Your task to perform on an android device: open wifi settings Image 0: 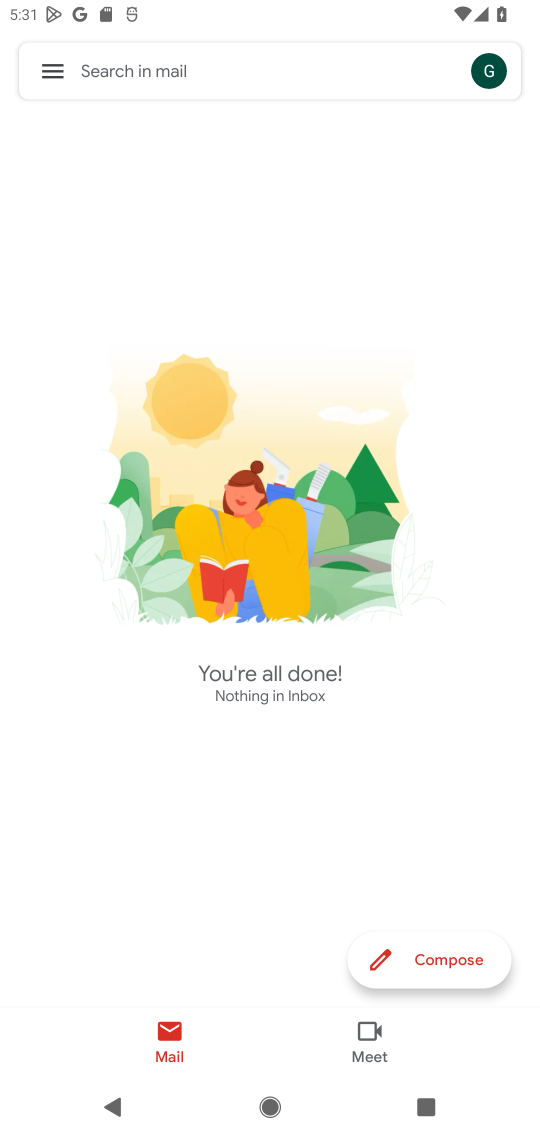
Step 0: drag from (234, 15) to (191, 993)
Your task to perform on an android device: open wifi settings Image 1: 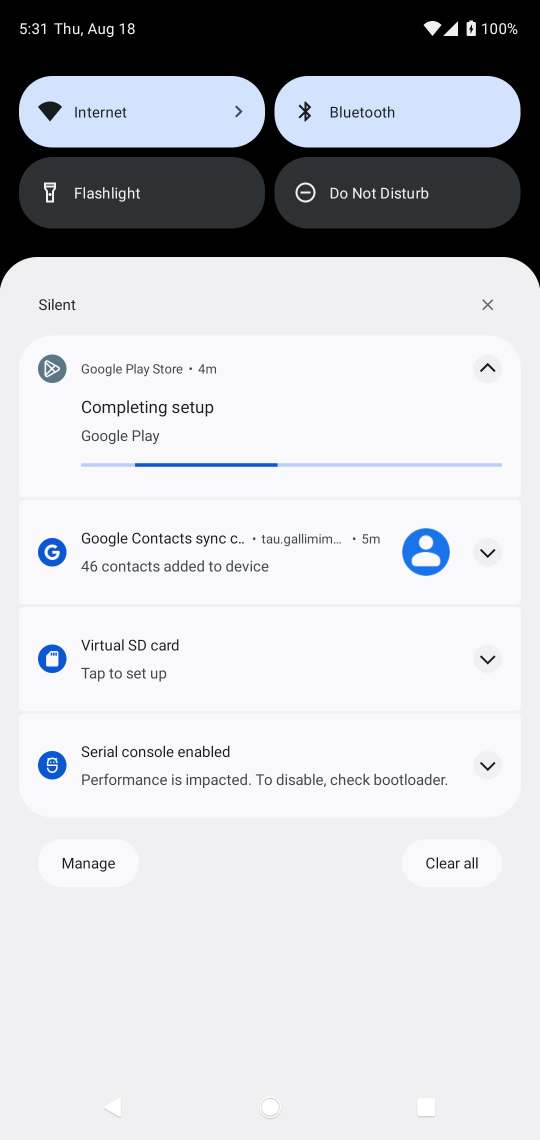
Step 1: click (99, 112)
Your task to perform on an android device: open wifi settings Image 2: 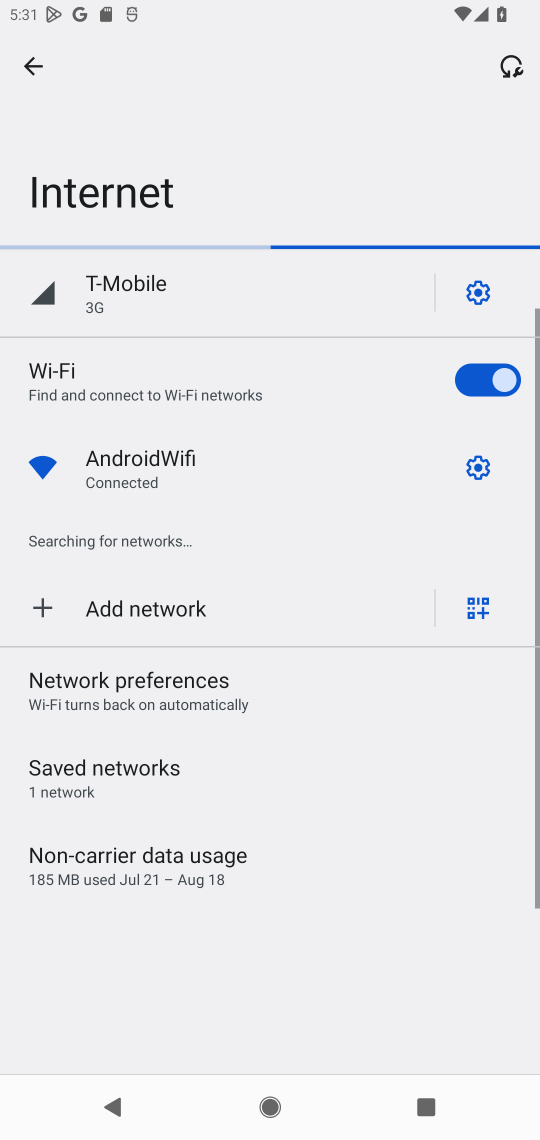
Step 2: task complete